Your task to perform on an android device: Open Maps and search for coffee Image 0: 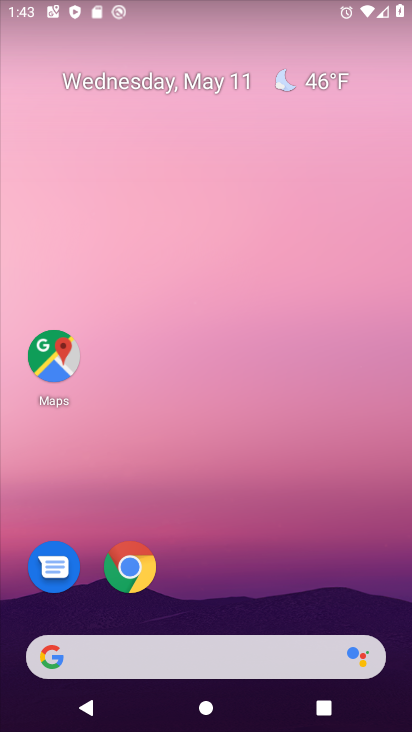
Step 0: click (40, 348)
Your task to perform on an android device: Open Maps and search for coffee Image 1: 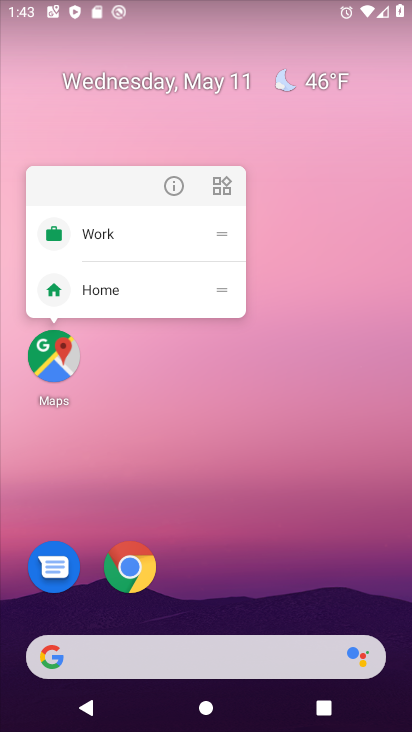
Step 1: click (58, 376)
Your task to perform on an android device: Open Maps and search for coffee Image 2: 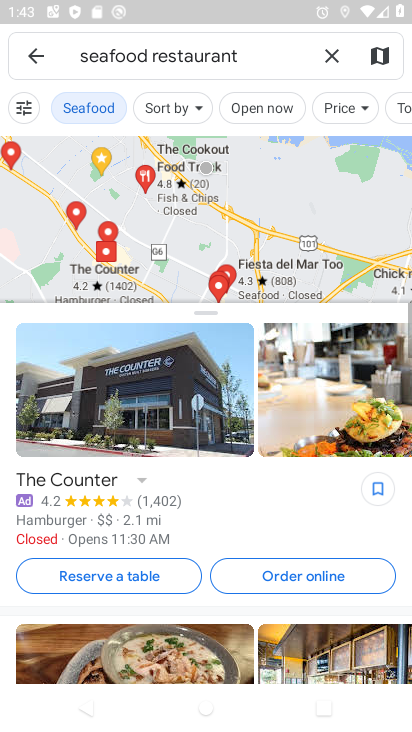
Step 2: click (333, 50)
Your task to perform on an android device: Open Maps and search for coffee Image 3: 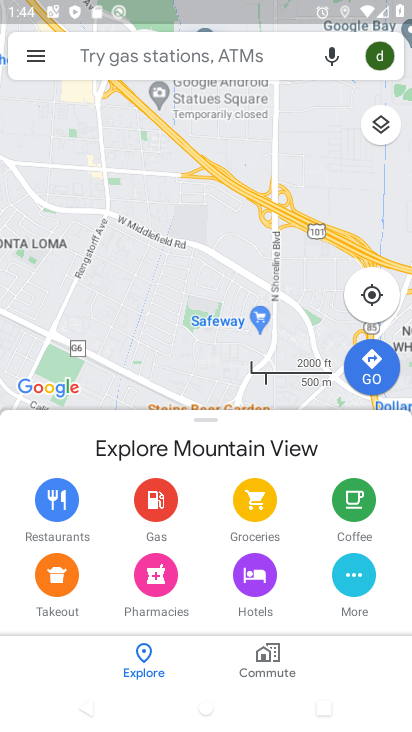
Step 3: click (237, 50)
Your task to perform on an android device: Open Maps and search for coffee Image 4: 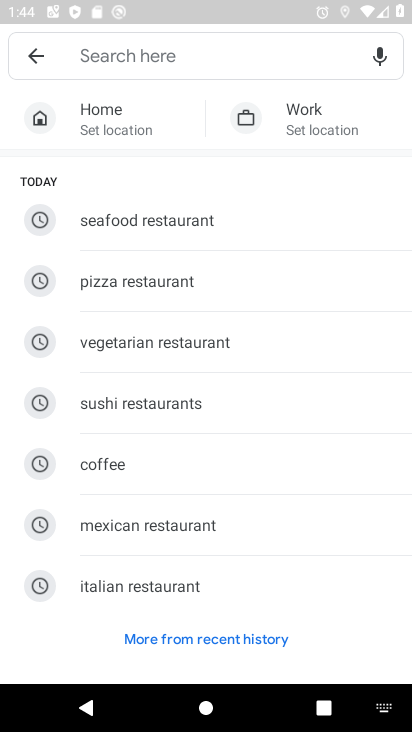
Step 4: click (125, 456)
Your task to perform on an android device: Open Maps and search for coffee Image 5: 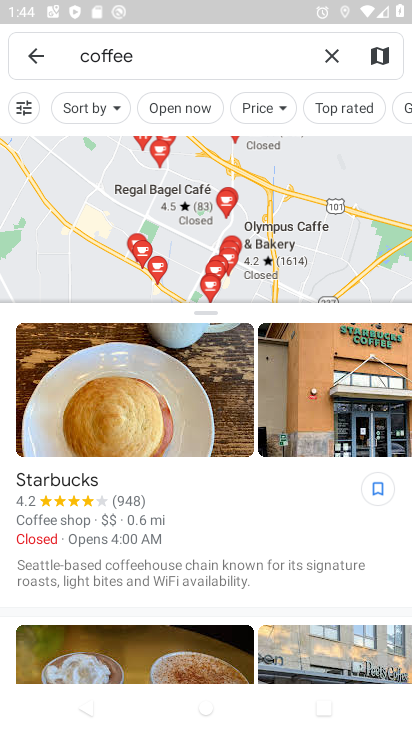
Step 5: task complete